Your task to perform on an android device: What's US dollar exchange rate against the South Korean Won? Image 0: 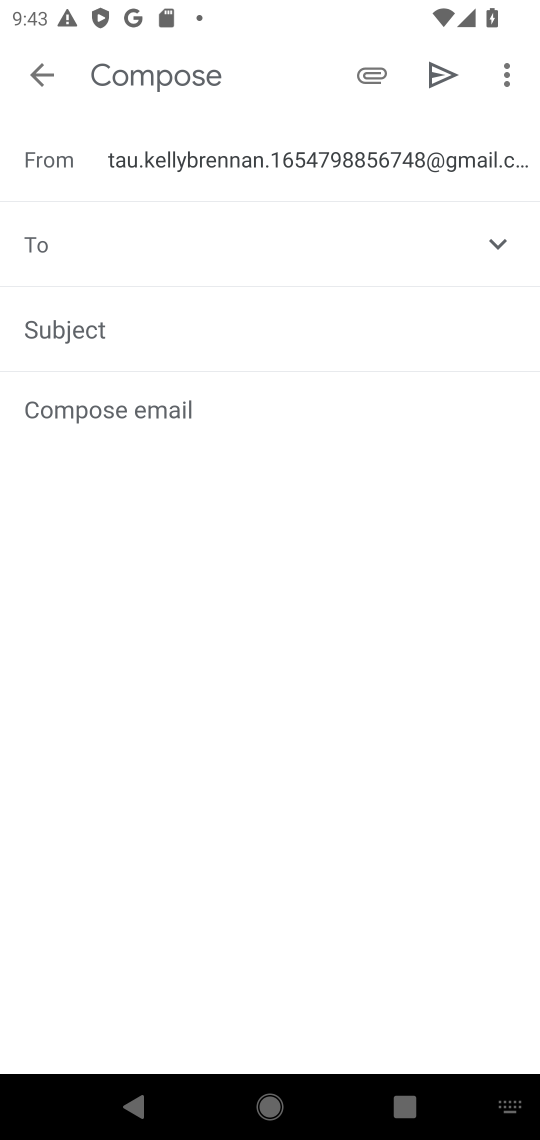
Step 0: press home button
Your task to perform on an android device: What's US dollar exchange rate against the South Korean Won? Image 1: 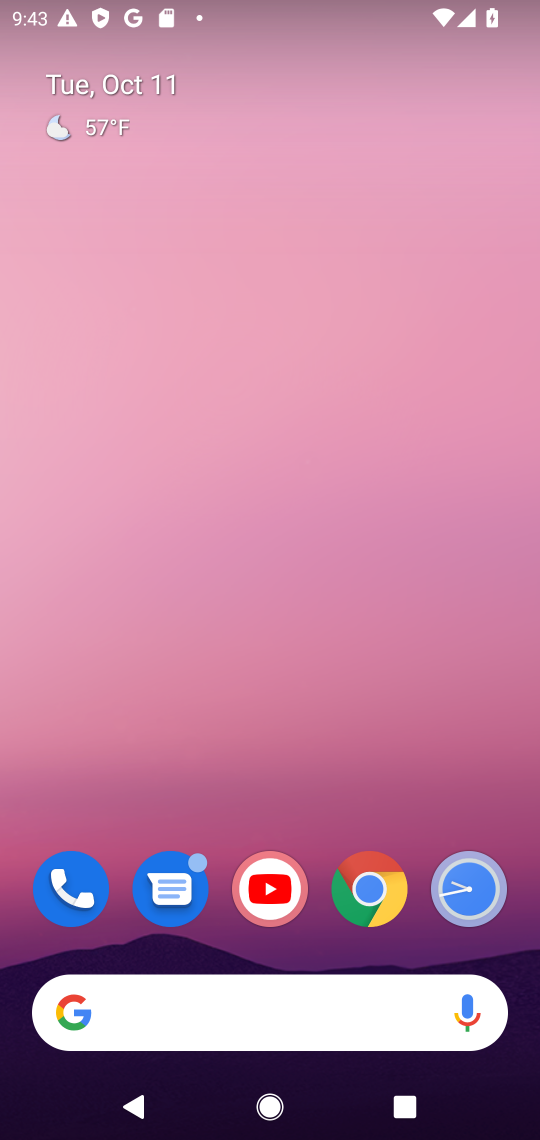
Step 1: click (258, 1022)
Your task to perform on an android device: What's US dollar exchange rate against the South Korean Won? Image 2: 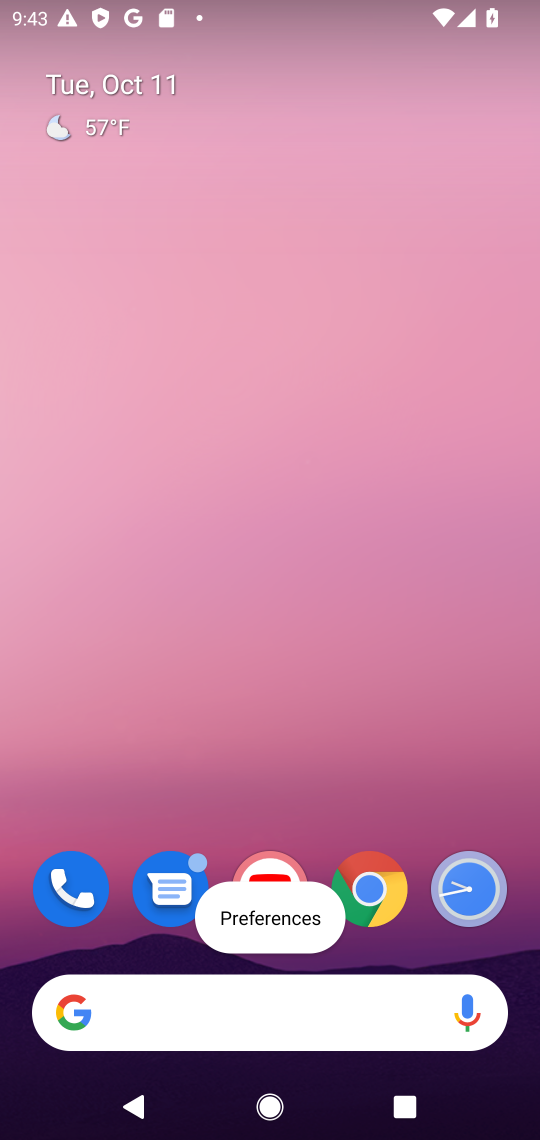
Step 2: click (166, 1014)
Your task to perform on an android device: What's US dollar exchange rate against the South Korean Won? Image 3: 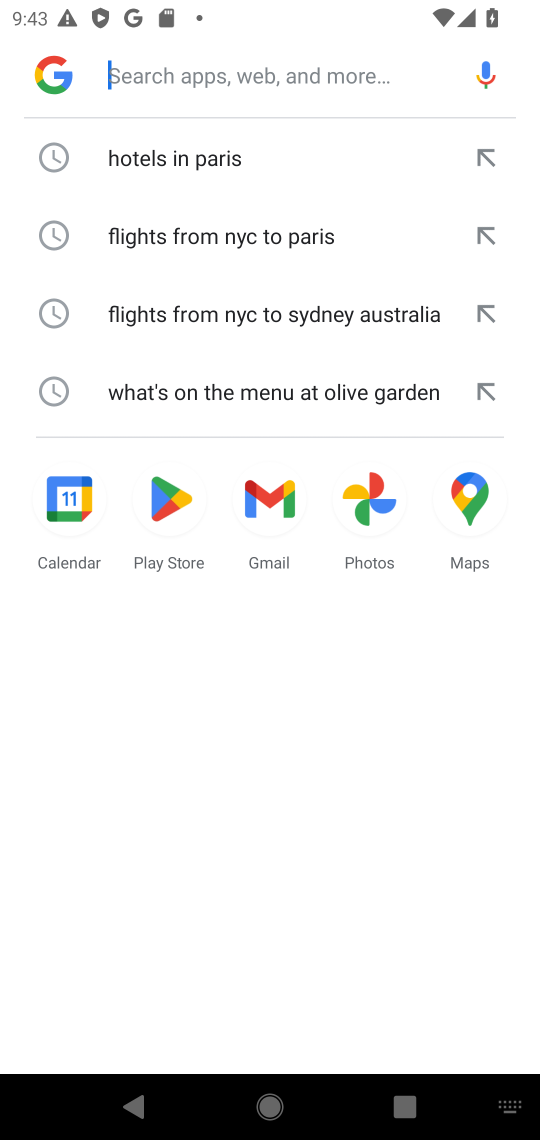
Step 3: click (150, 76)
Your task to perform on an android device: What's US dollar exchange rate against the South Korean Won? Image 4: 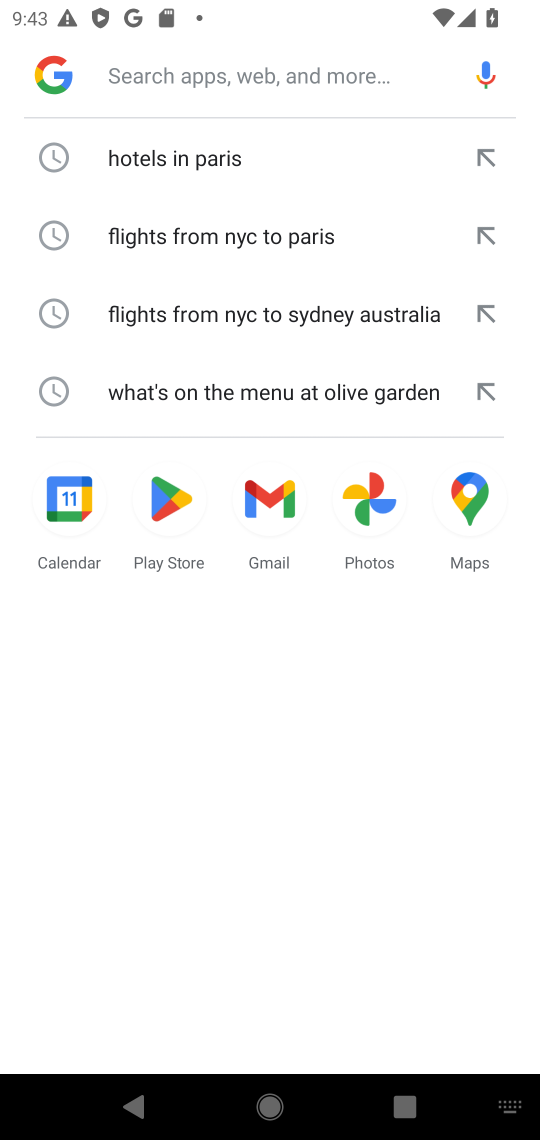
Step 4: type "What's US dollar exchange rate against the South Korean Won?"
Your task to perform on an android device: What's US dollar exchange rate against the South Korean Won? Image 5: 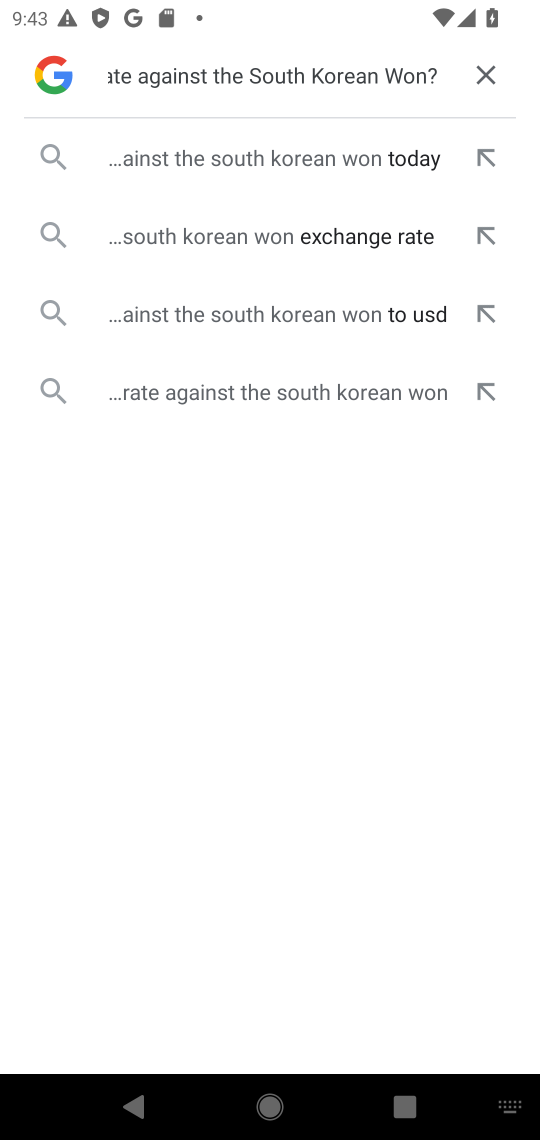
Step 5: click (249, 166)
Your task to perform on an android device: What's US dollar exchange rate against the South Korean Won? Image 6: 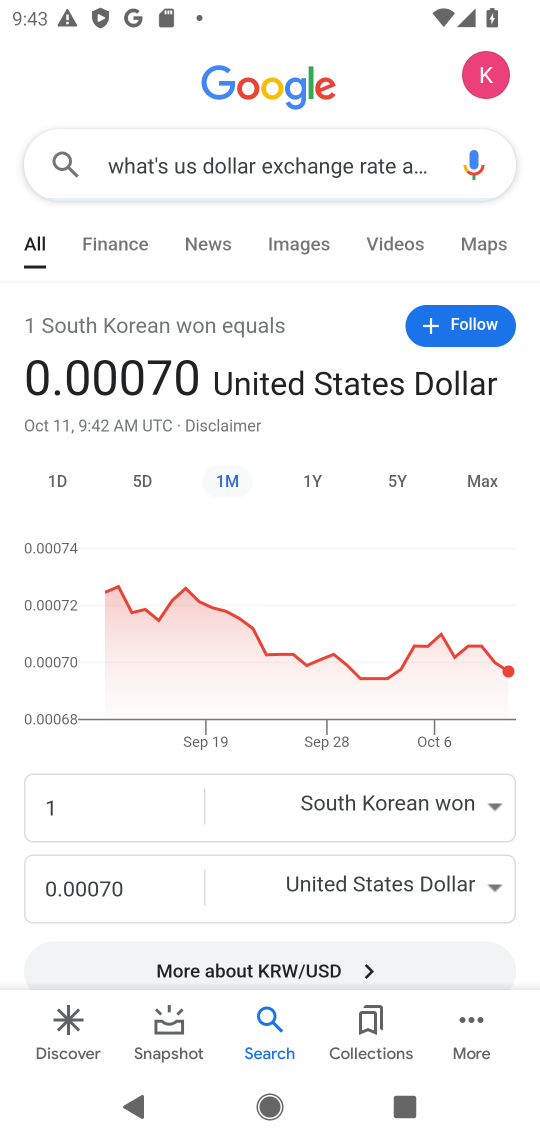
Step 6: task complete